Your task to perform on an android device: open a bookmark in the chrome app Image 0: 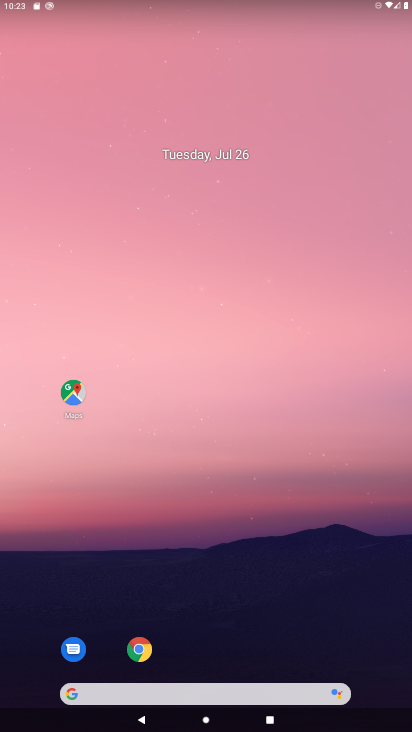
Step 0: click (132, 653)
Your task to perform on an android device: open a bookmark in the chrome app Image 1: 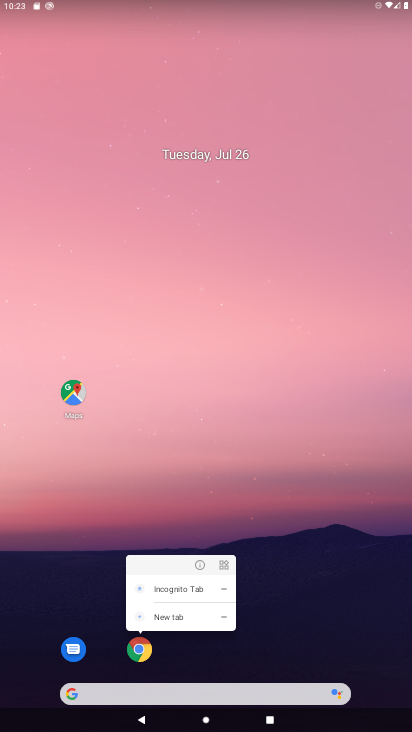
Step 1: click (132, 653)
Your task to perform on an android device: open a bookmark in the chrome app Image 2: 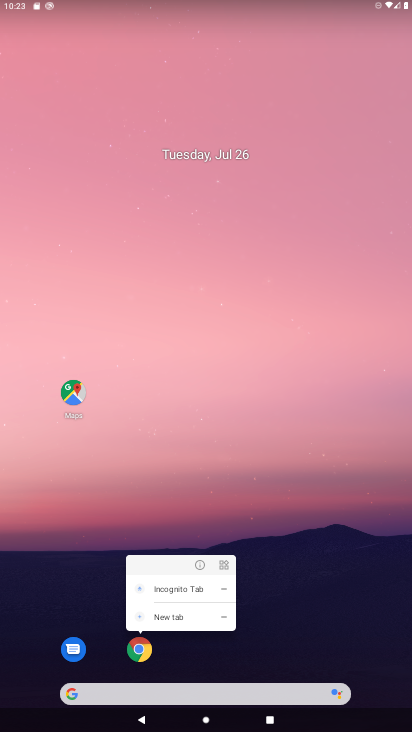
Step 2: click (137, 648)
Your task to perform on an android device: open a bookmark in the chrome app Image 3: 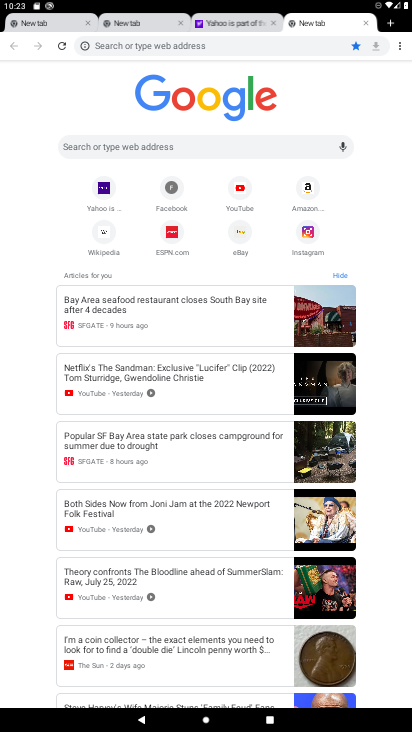
Step 3: click (397, 50)
Your task to perform on an android device: open a bookmark in the chrome app Image 4: 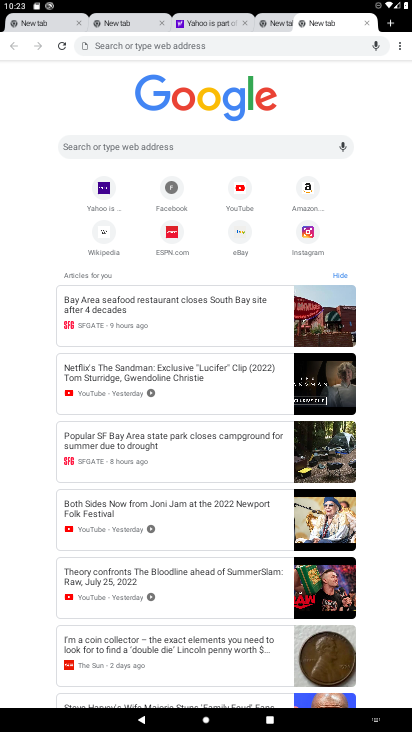
Step 4: click (242, 24)
Your task to perform on an android device: open a bookmark in the chrome app Image 5: 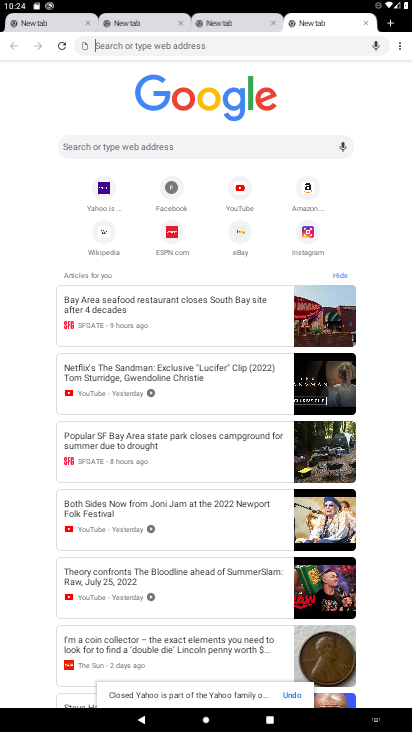
Step 5: click (177, 25)
Your task to perform on an android device: open a bookmark in the chrome app Image 6: 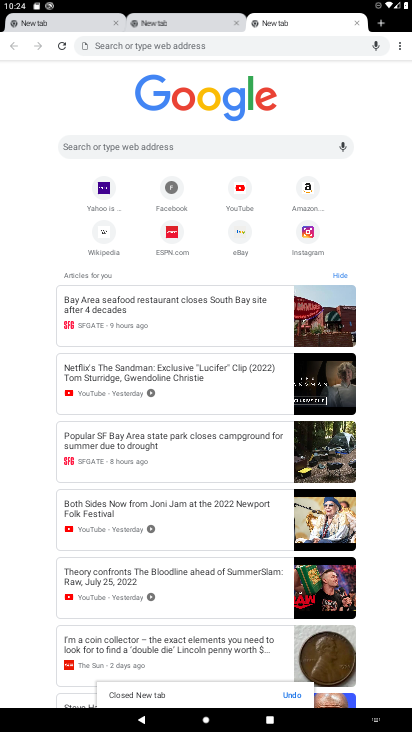
Step 6: click (233, 24)
Your task to perform on an android device: open a bookmark in the chrome app Image 7: 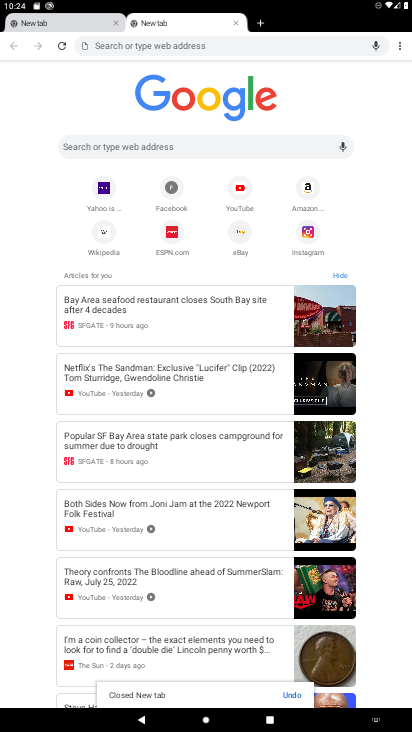
Step 7: click (233, 24)
Your task to perform on an android device: open a bookmark in the chrome app Image 8: 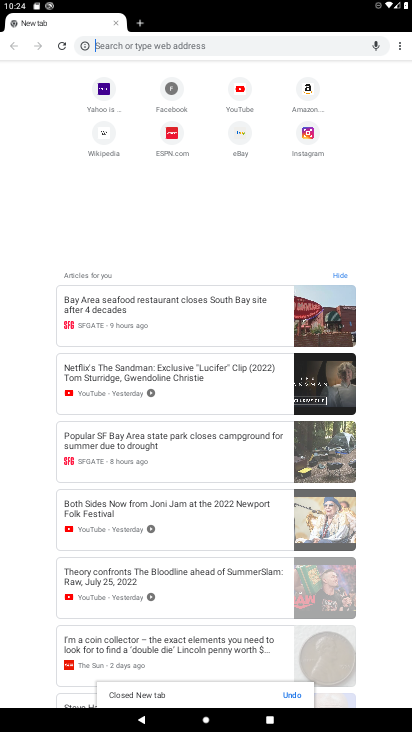
Step 8: click (400, 46)
Your task to perform on an android device: open a bookmark in the chrome app Image 9: 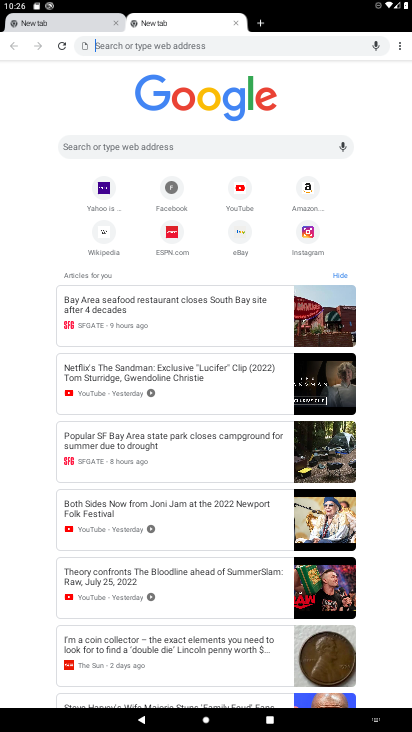
Step 9: click (399, 44)
Your task to perform on an android device: open a bookmark in the chrome app Image 10: 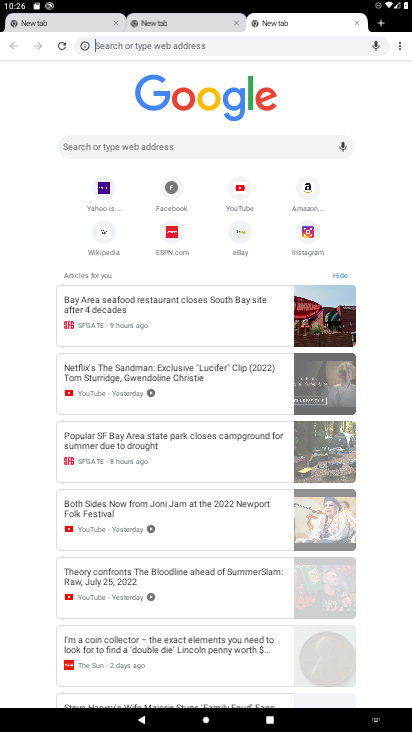
Step 10: click (399, 44)
Your task to perform on an android device: open a bookmark in the chrome app Image 11: 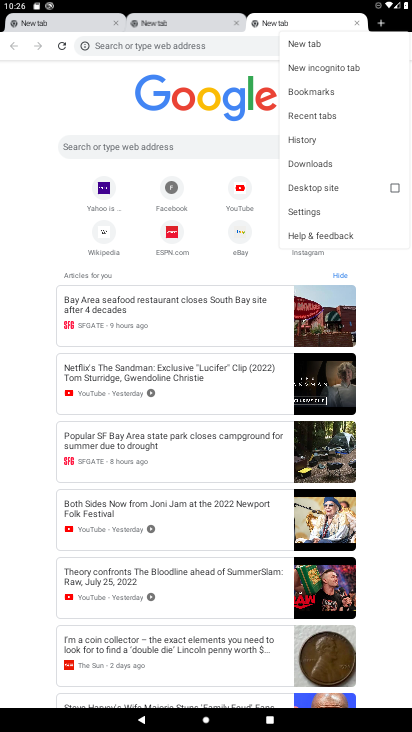
Step 11: click (305, 91)
Your task to perform on an android device: open a bookmark in the chrome app Image 12: 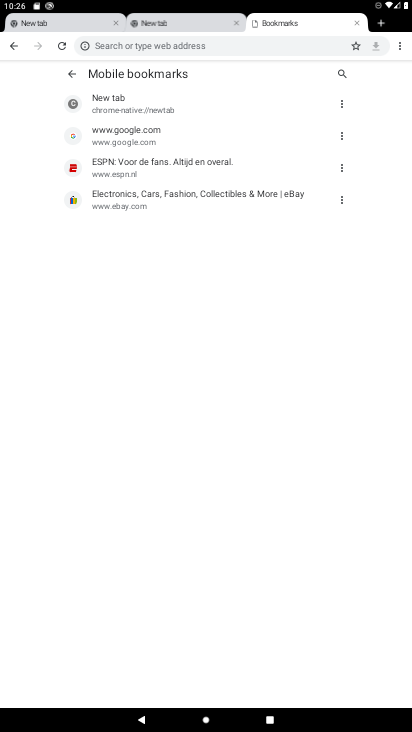
Step 12: task complete